Your task to perform on an android device: turn on wifi Image 0: 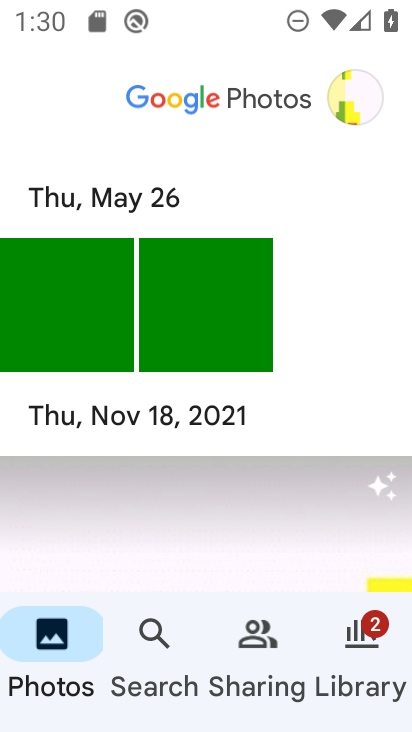
Step 0: press home button
Your task to perform on an android device: turn on wifi Image 1: 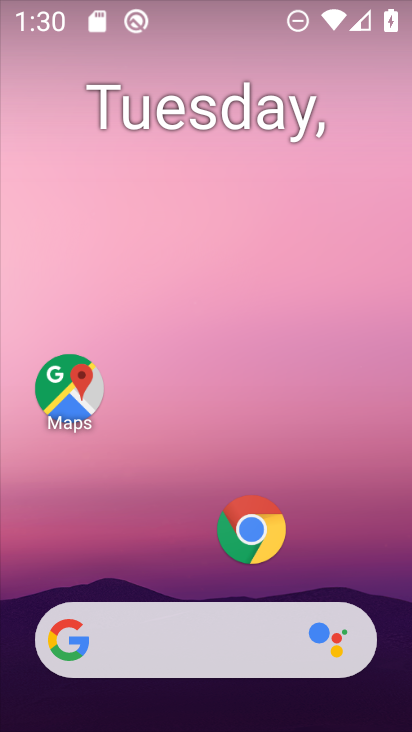
Step 1: drag from (244, 656) to (303, 264)
Your task to perform on an android device: turn on wifi Image 2: 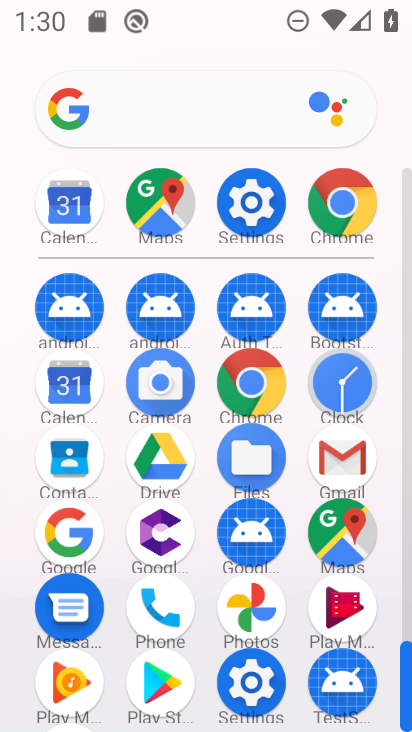
Step 2: click (249, 186)
Your task to perform on an android device: turn on wifi Image 3: 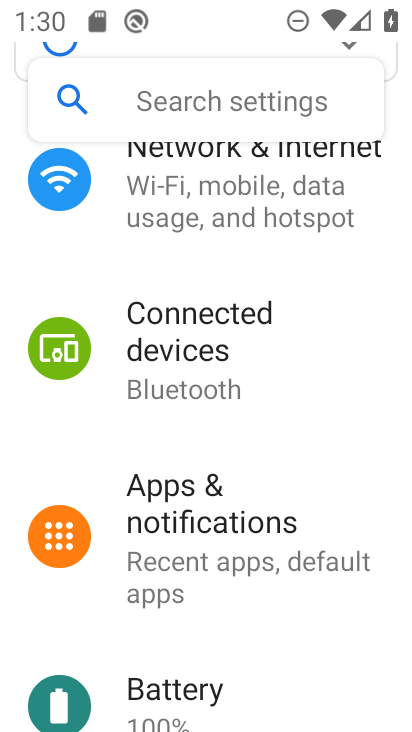
Step 3: click (175, 152)
Your task to perform on an android device: turn on wifi Image 4: 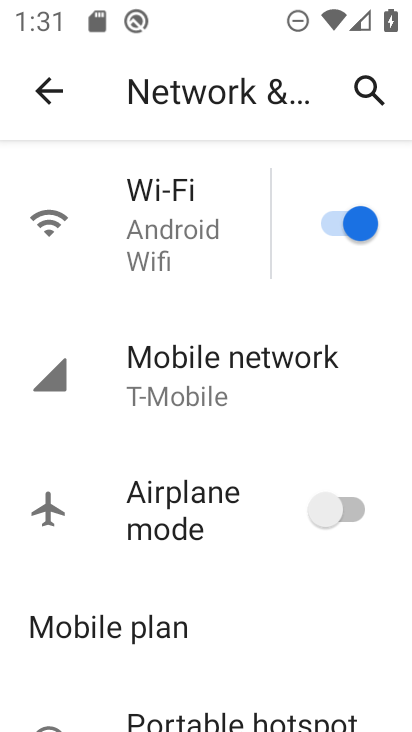
Step 4: task complete